Your task to perform on an android device: Go to Maps Image 0: 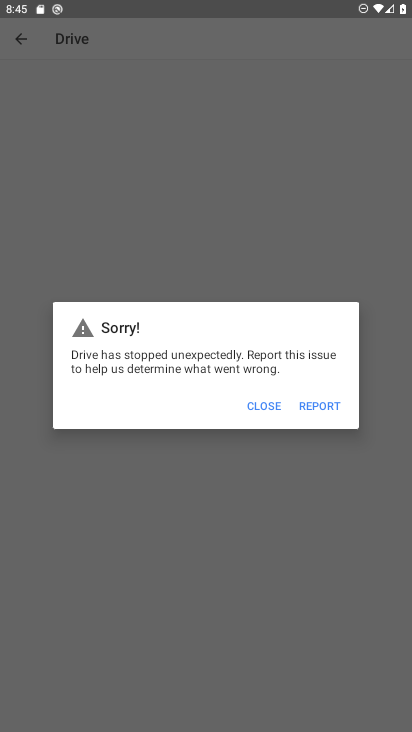
Step 0: press home button
Your task to perform on an android device: Go to Maps Image 1: 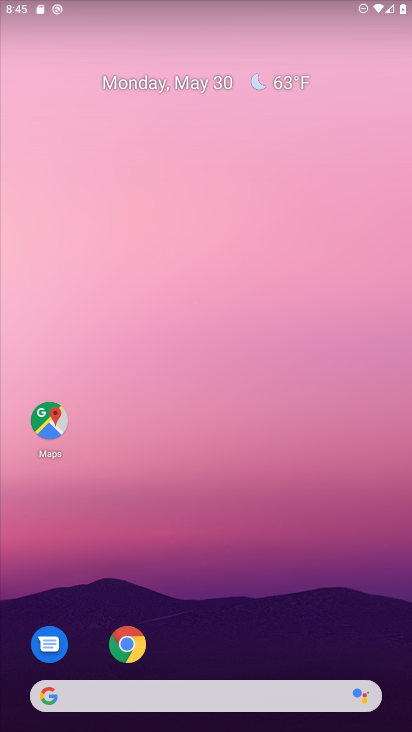
Step 1: click (52, 413)
Your task to perform on an android device: Go to Maps Image 2: 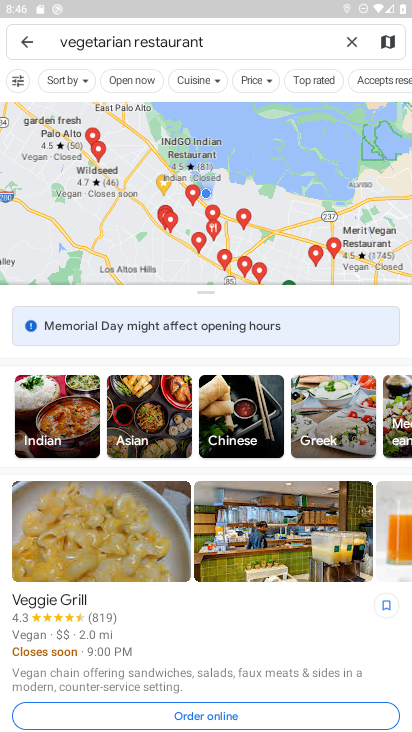
Step 2: task complete